Your task to perform on an android device: turn off improve location accuracy Image 0: 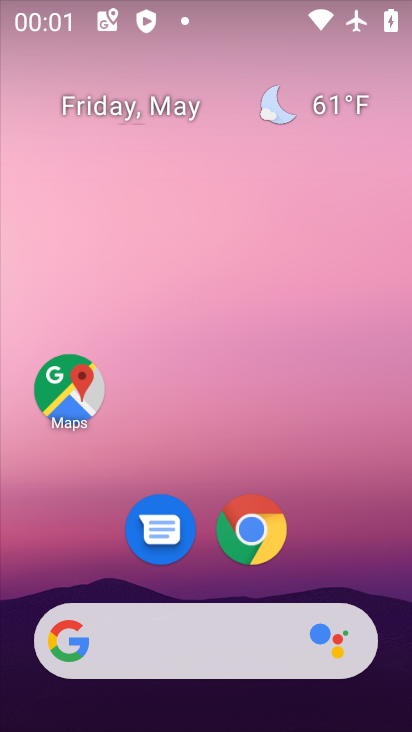
Step 0: drag from (370, 563) to (340, 158)
Your task to perform on an android device: turn off improve location accuracy Image 1: 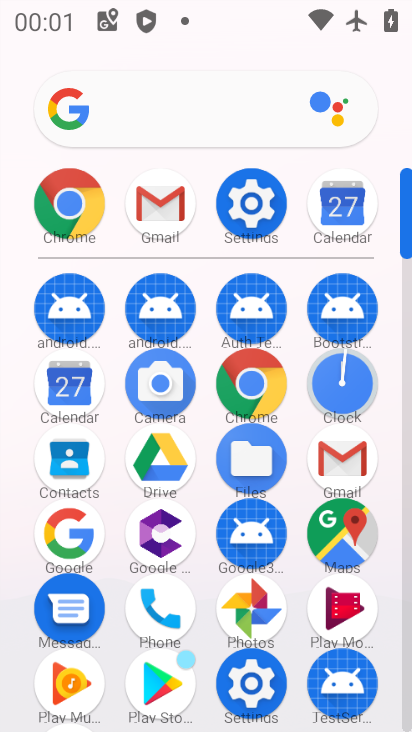
Step 1: click (263, 226)
Your task to perform on an android device: turn off improve location accuracy Image 2: 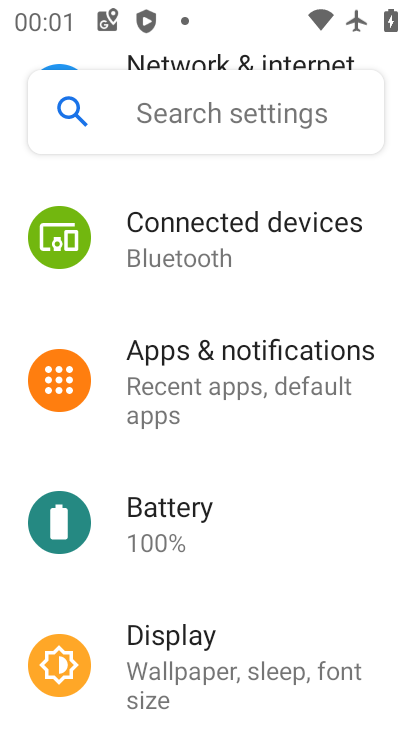
Step 2: drag from (212, 582) to (226, 281)
Your task to perform on an android device: turn off improve location accuracy Image 3: 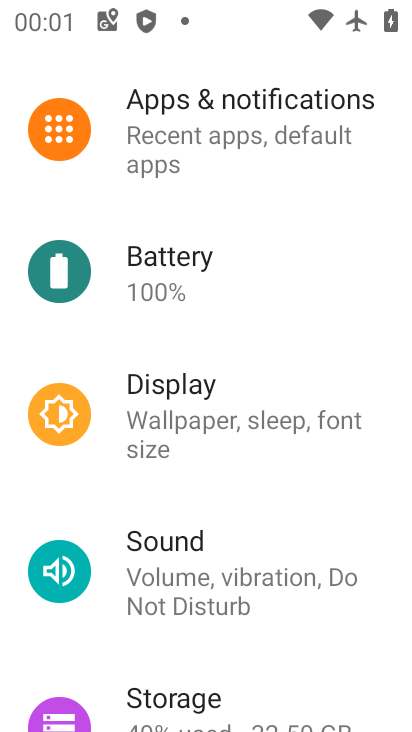
Step 3: drag from (215, 581) to (226, 220)
Your task to perform on an android device: turn off improve location accuracy Image 4: 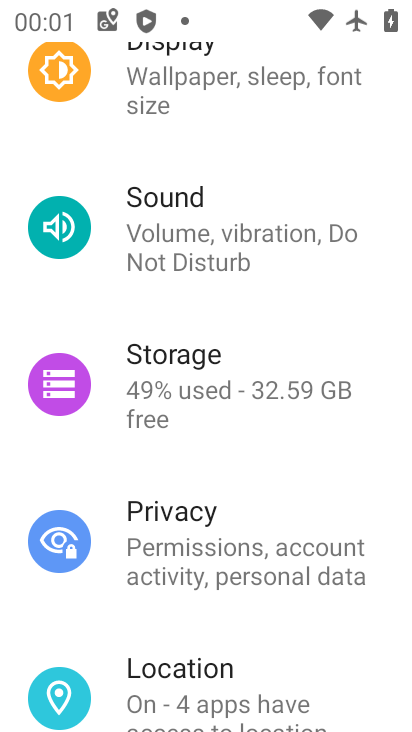
Step 4: drag from (219, 554) to (256, 211)
Your task to perform on an android device: turn off improve location accuracy Image 5: 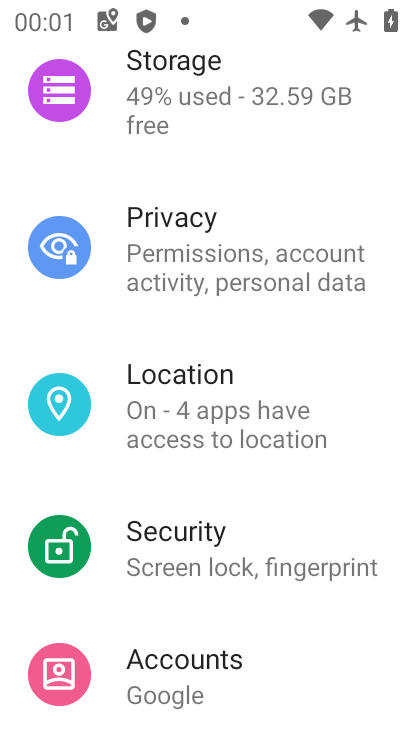
Step 5: click (206, 421)
Your task to perform on an android device: turn off improve location accuracy Image 6: 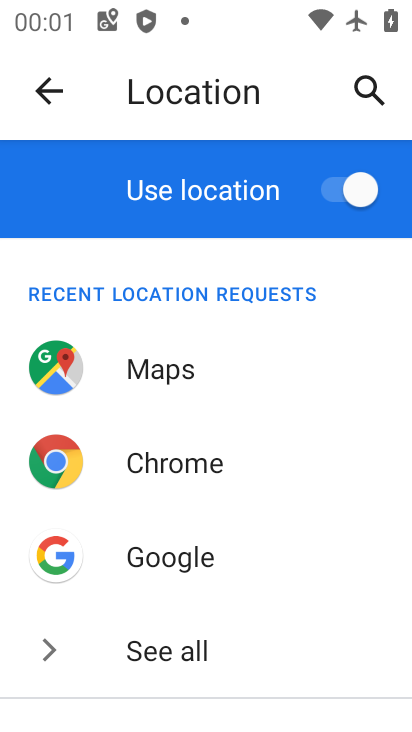
Step 6: drag from (255, 588) to (265, 284)
Your task to perform on an android device: turn off improve location accuracy Image 7: 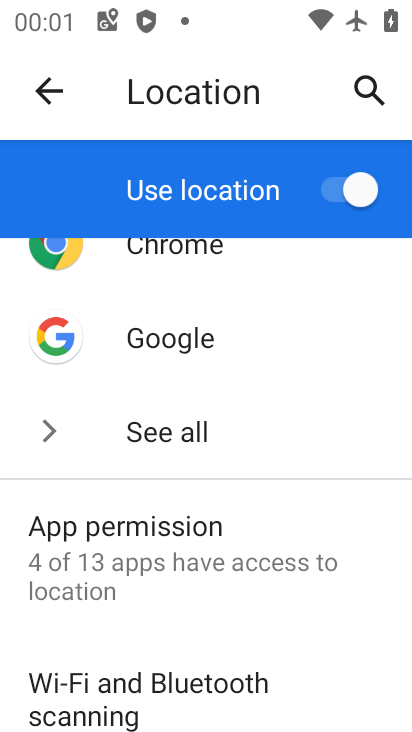
Step 7: drag from (156, 645) to (192, 302)
Your task to perform on an android device: turn off improve location accuracy Image 8: 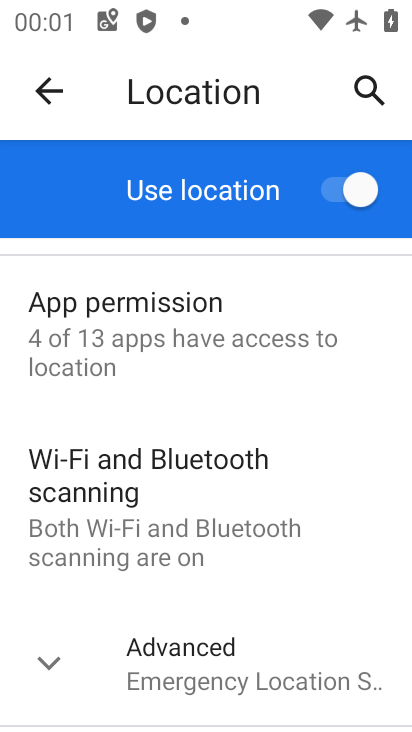
Step 8: click (217, 651)
Your task to perform on an android device: turn off improve location accuracy Image 9: 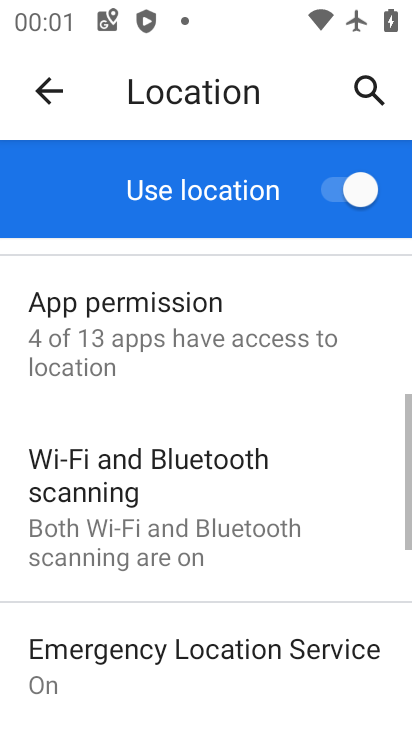
Step 9: drag from (293, 615) to (294, 265)
Your task to perform on an android device: turn off improve location accuracy Image 10: 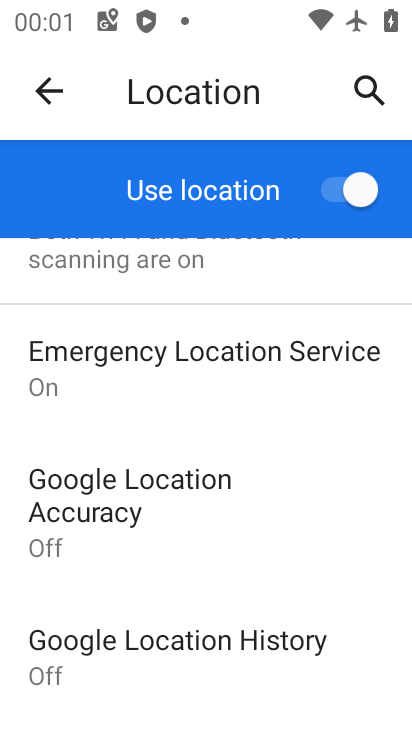
Step 10: drag from (235, 636) to (237, 423)
Your task to perform on an android device: turn off improve location accuracy Image 11: 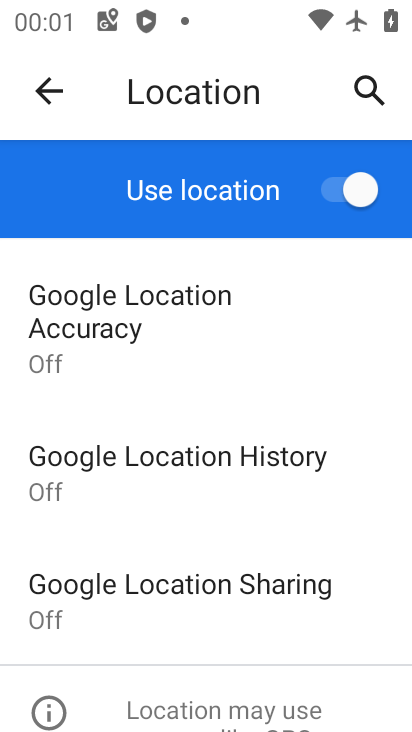
Step 11: click (136, 341)
Your task to perform on an android device: turn off improve location accuracy Image 12: 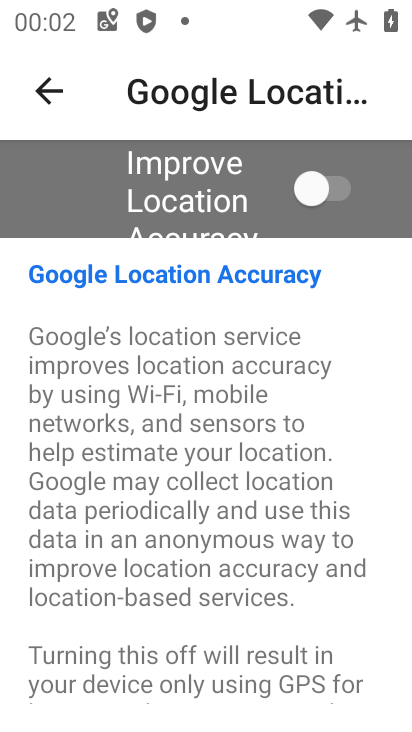
Step 12: click (347, 174)
Your task to perform on an android device: turn off improve location accuracy Image 13: 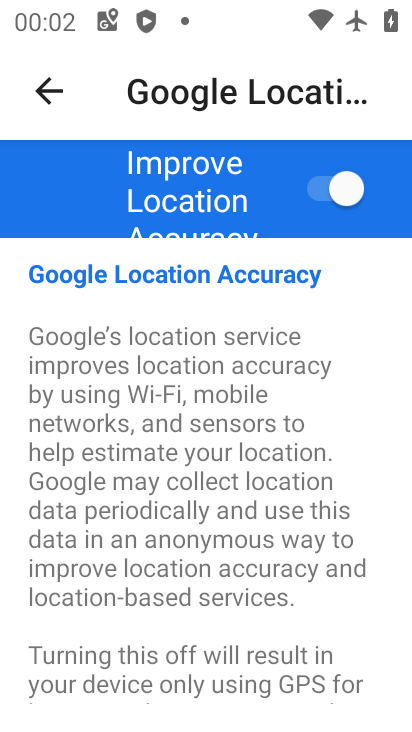
Step 13: task complete